Your task to perform on an android device: uninstall "Pinterest" Image 0: 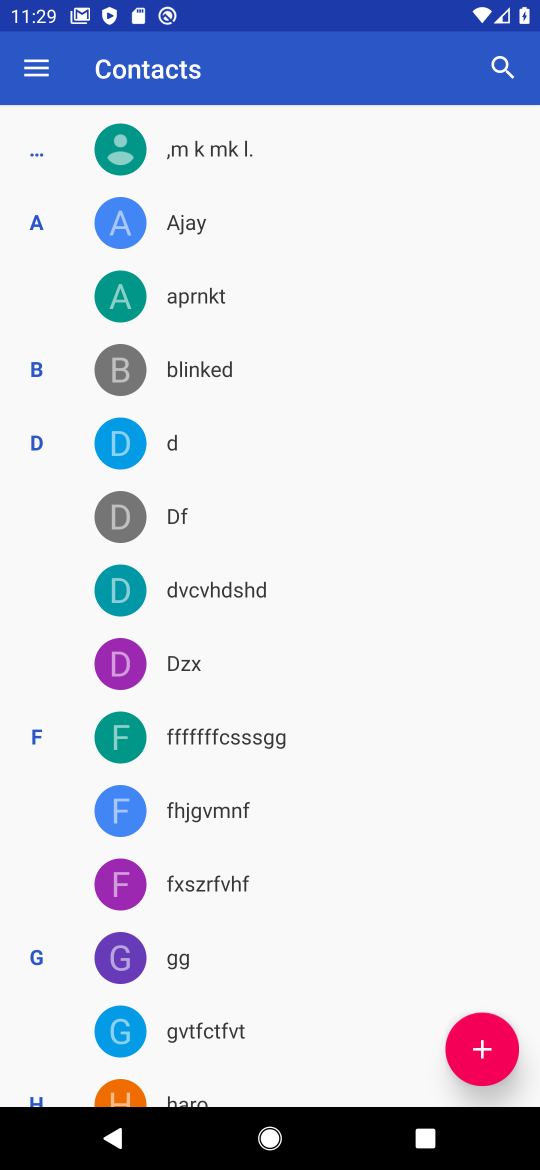
Step 0: press home button
Your task to perform on an android device: uninstall "Pinterest" Image 1: 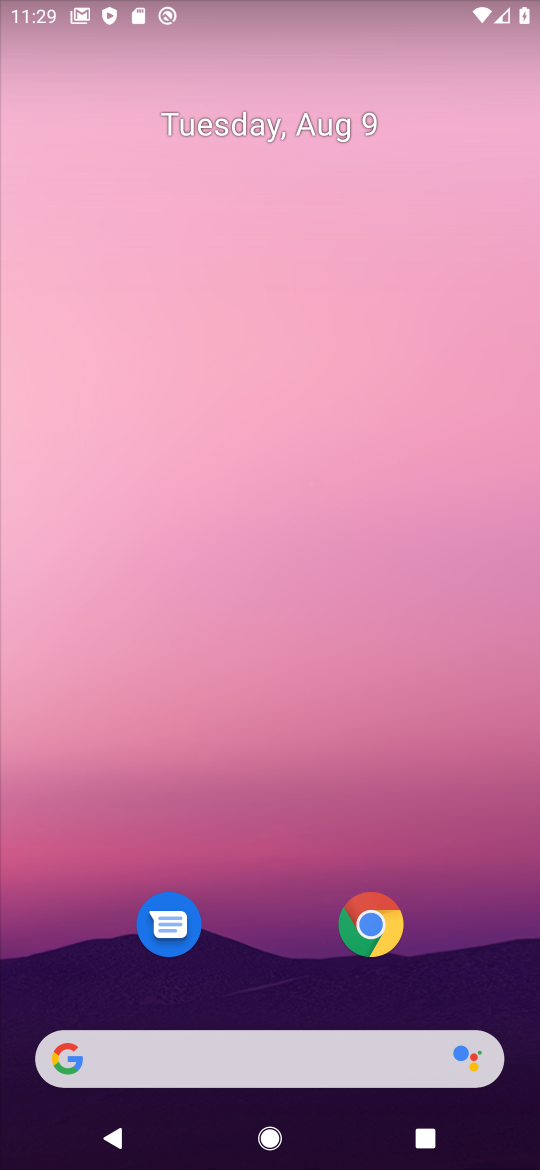
Step 1: drag from (308, 1045) to (320, 65)
Your task to perform on an android device: uninstall "Pinterest" Image 2: 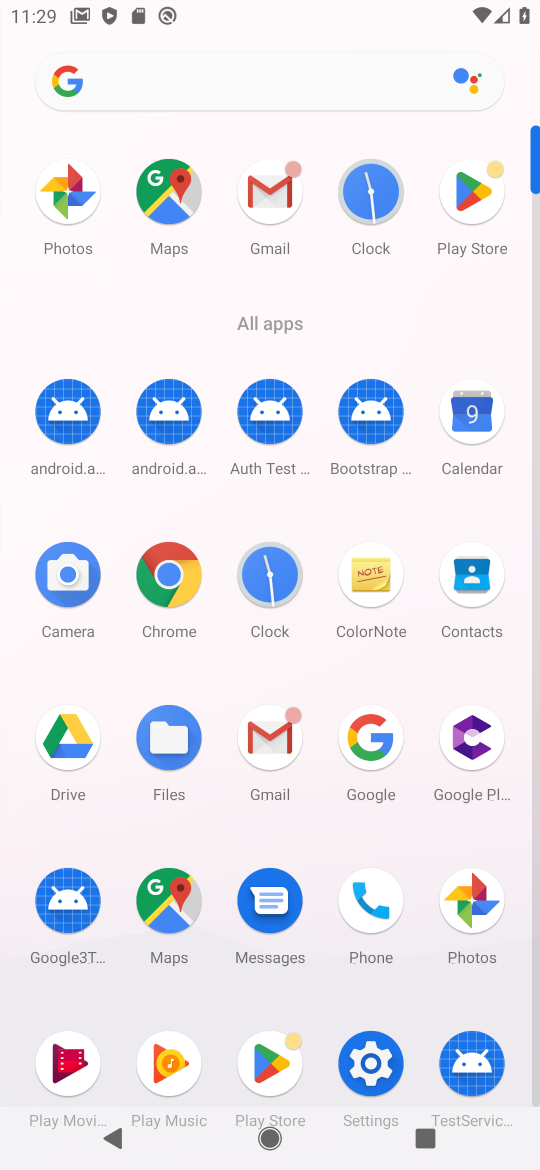
Step 2: click (481, 196)
Your task to perform on an android device: uninstall "Pinterest" Image 3: 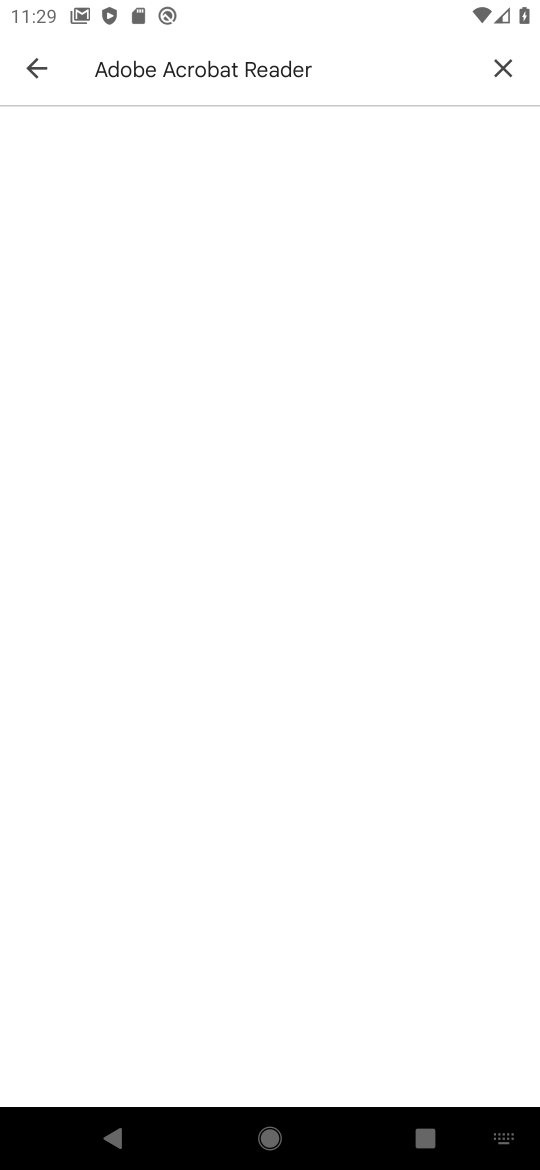
Step 3: click (481, 196)
Your task to perform on an android device: uninstall "Pinterest" Image 4: 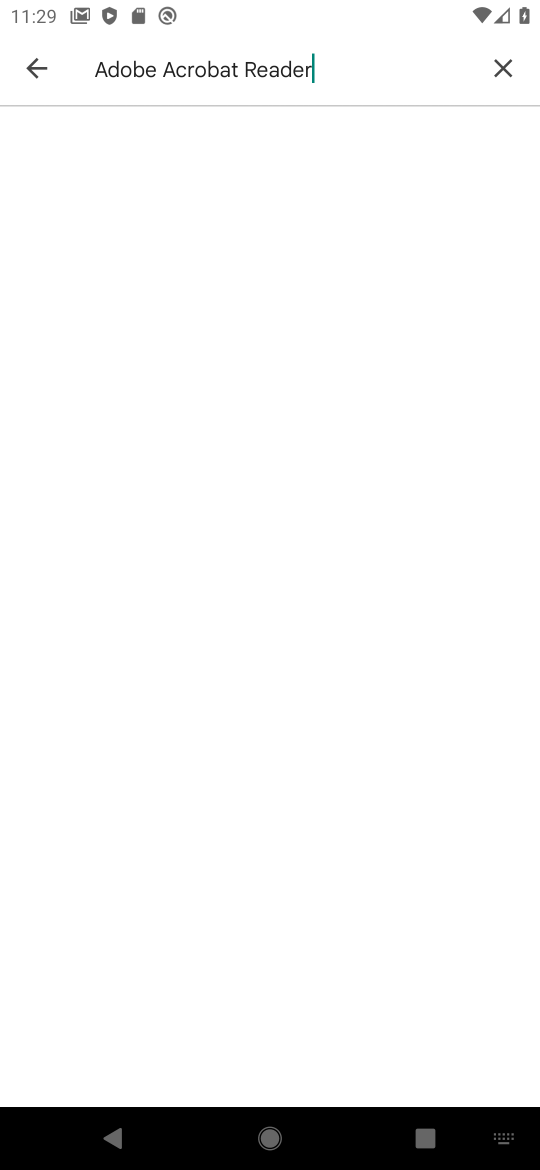
Step 4: click (505, 70)
Your task to perform on an android device: uninstall "Pinterest" Image 5: 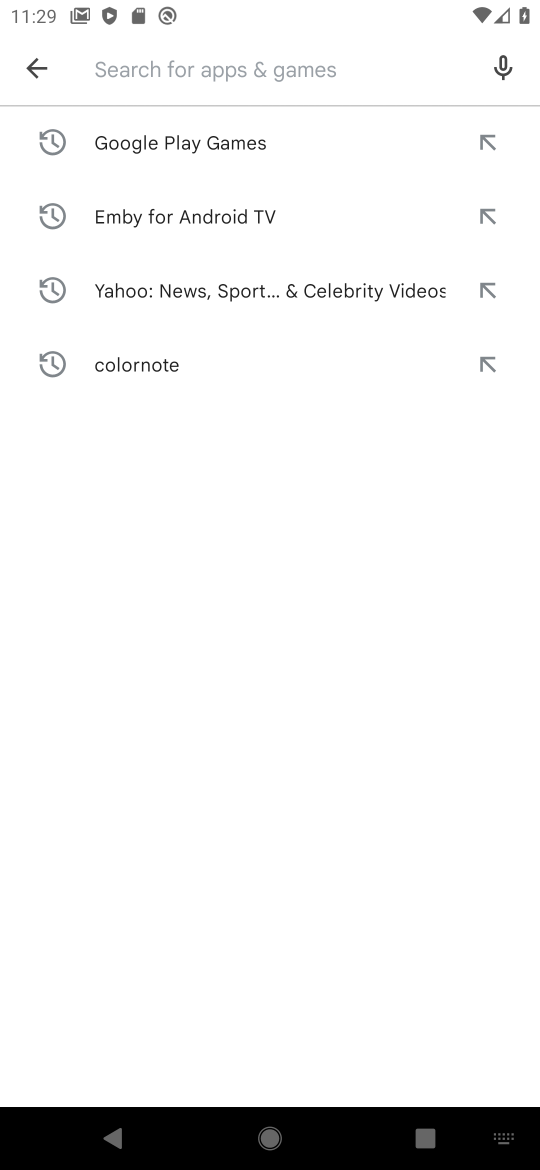
Step 5: click (210, 58)
Your task to perform on an android device: uninstall "Pinterest" Image 6: 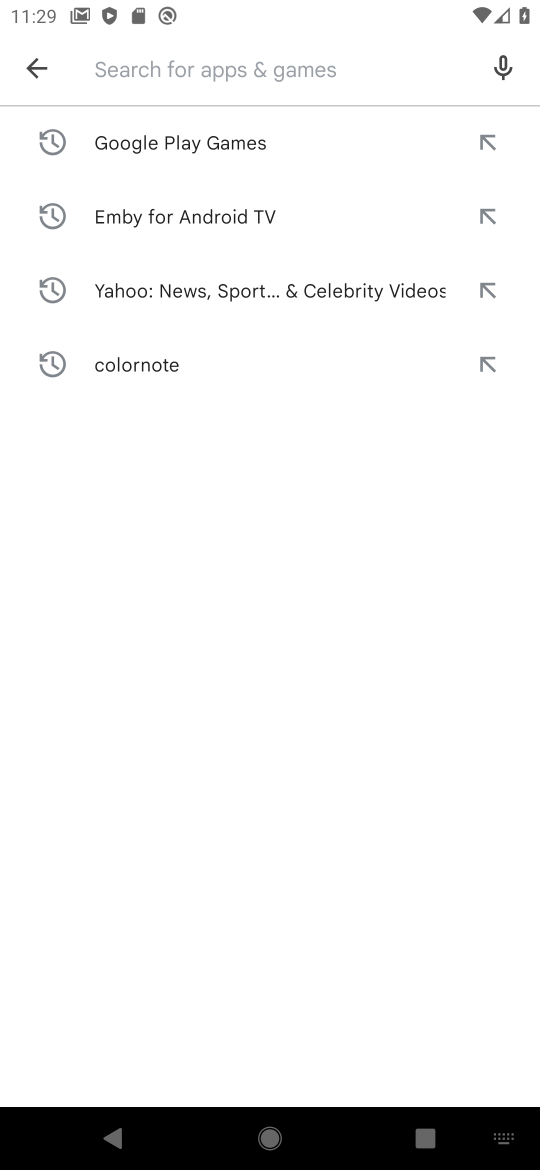
Step 6: type "Pinterest"
Your task to perform on an android device: uninstall "Pinterest" Image 7: 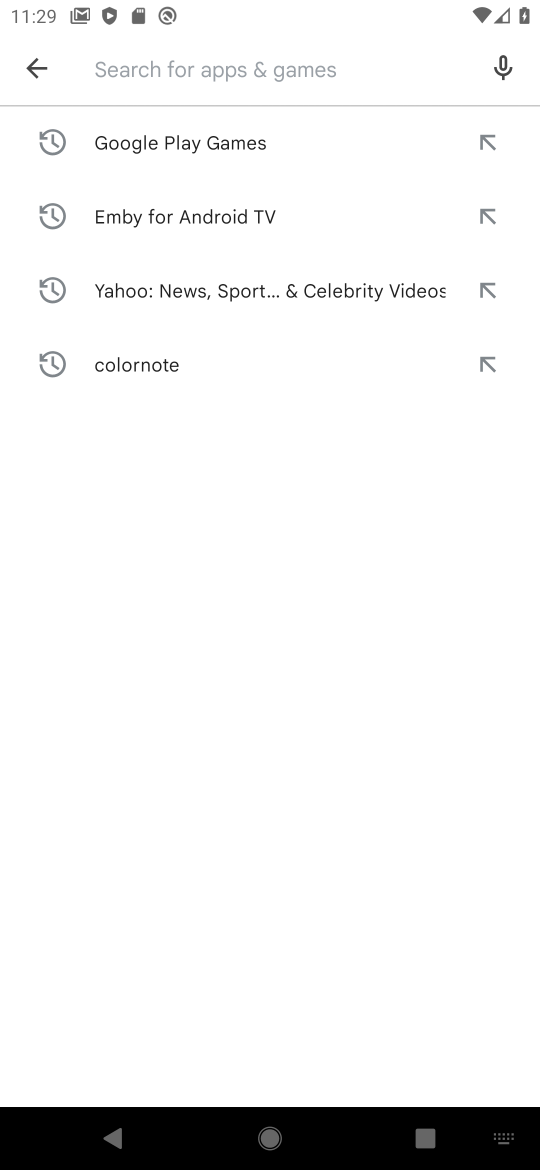
Step 7: click (149, 531)
Your task to perform on an android device: uninstall "Pinterest" Image 8: 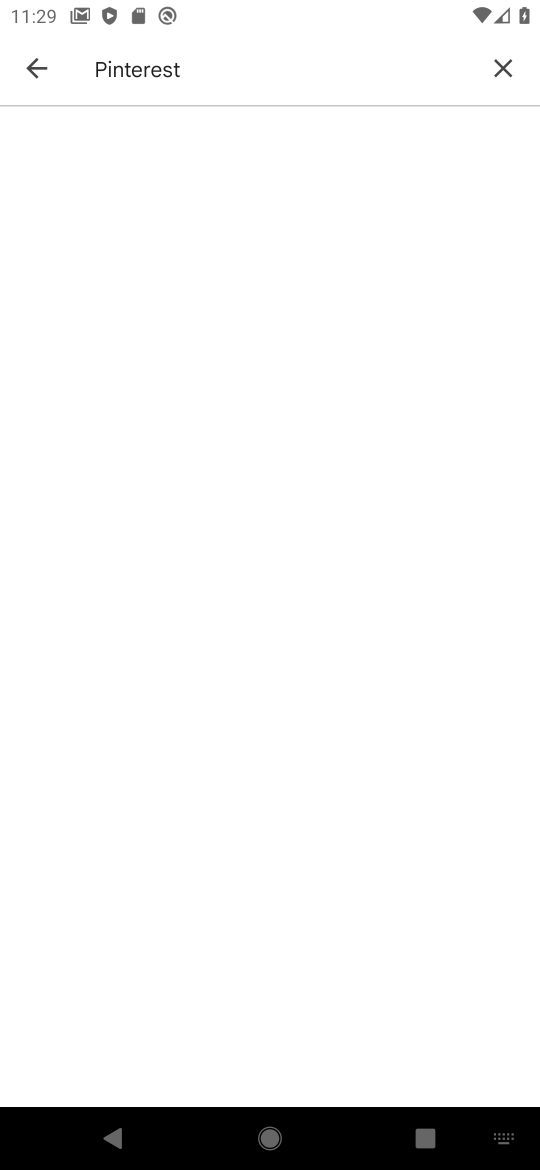
Step 8: task complete